Your task to perform on an android device: Open notification settings Image 0: 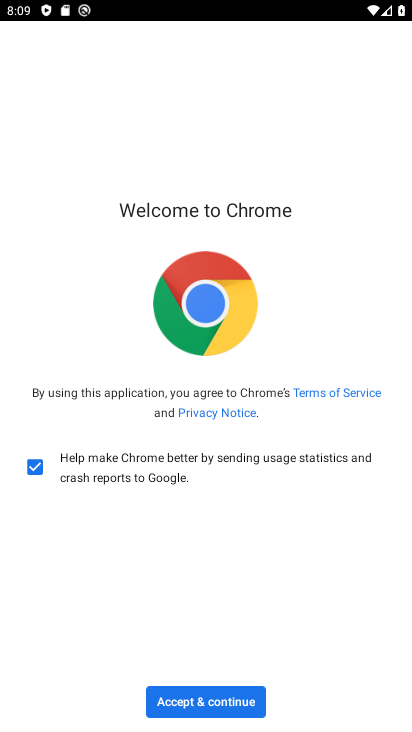
Step 0: press home button
Your task to perform on an android device: Open notification settings Image 1: 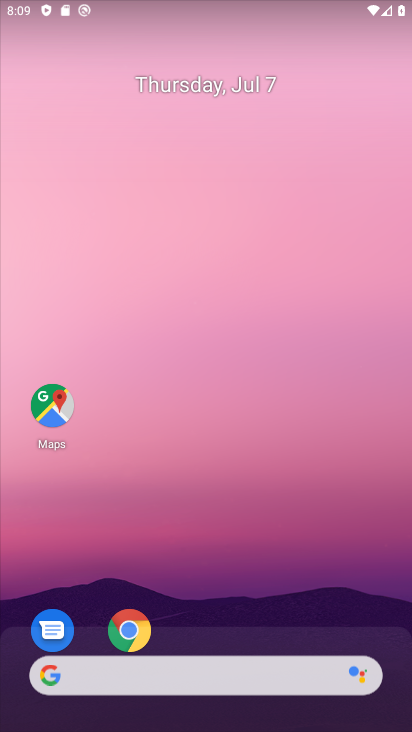
Step 1: drag from (182, 623) to (180, 200)
Your task to perform on an android device: Open notification settings Image 2: 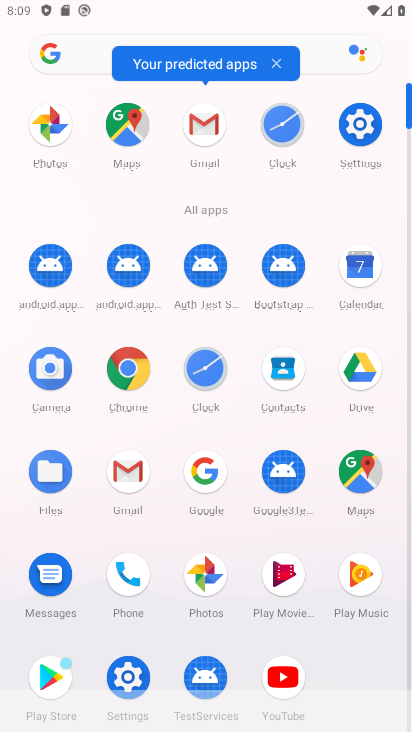
Step 2: click (122, 666)
Your task to perform on an android device: Open notification settings Image 3: 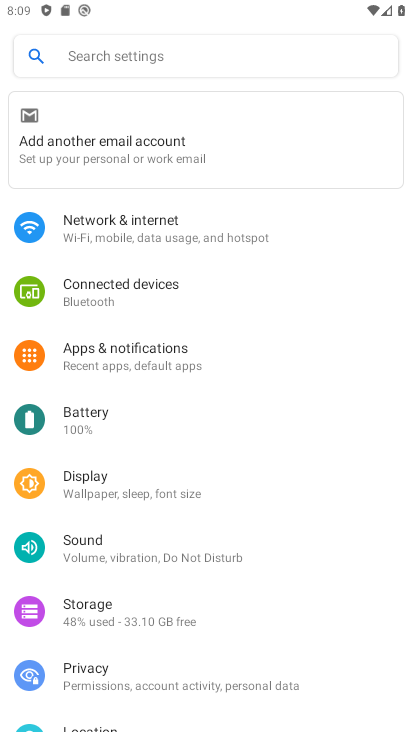
Step 3: click (145, 365)
Your task to perform on an android device: Open notification settings Image 4: 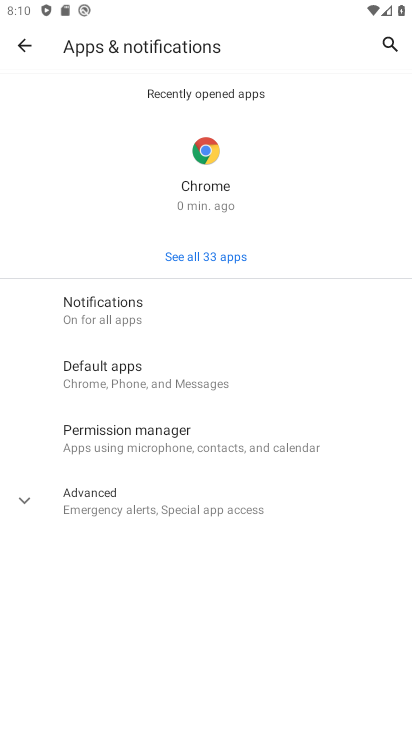
Step 4: click (110, 325)
Your task to perform on an android device: Open notification settings Image 5: 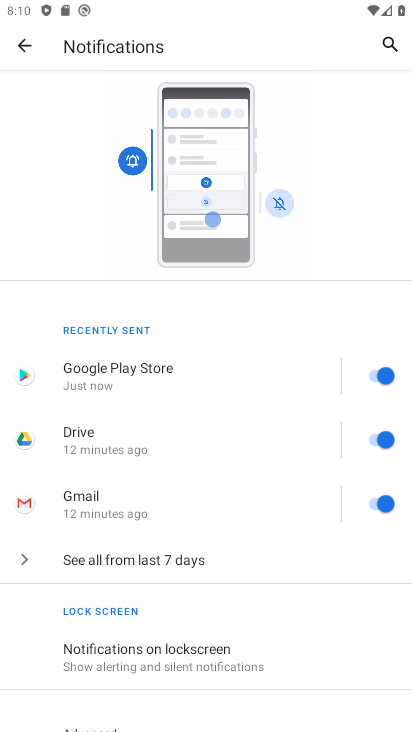
Step 5: task complete